Your task to perform on an android device: Go to battery settings Image 0: 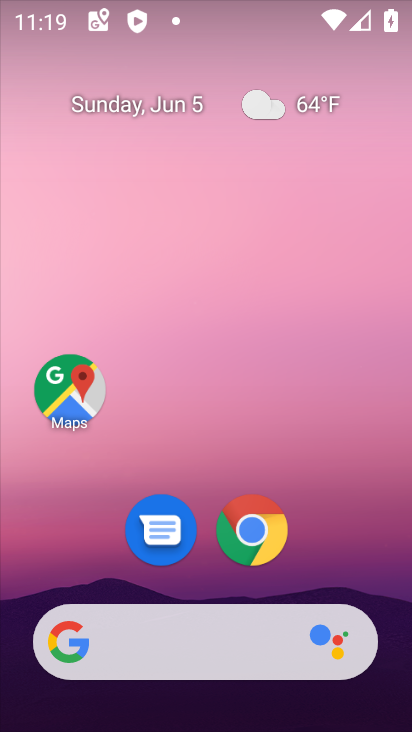
Step 0: drag from (371, 522) to (36, 355)
Your task to perform on an android device: Go to battery settings Image 1: 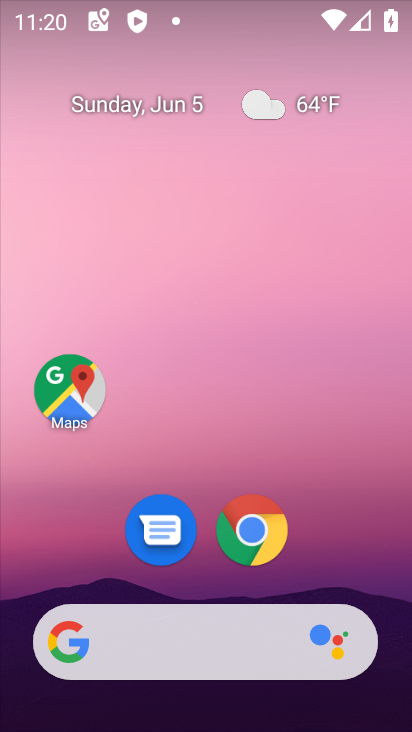
Step 1: drag from (353, 544) to (297, 5)
Your task to perform on an android device: Go to battery settings Image 2: 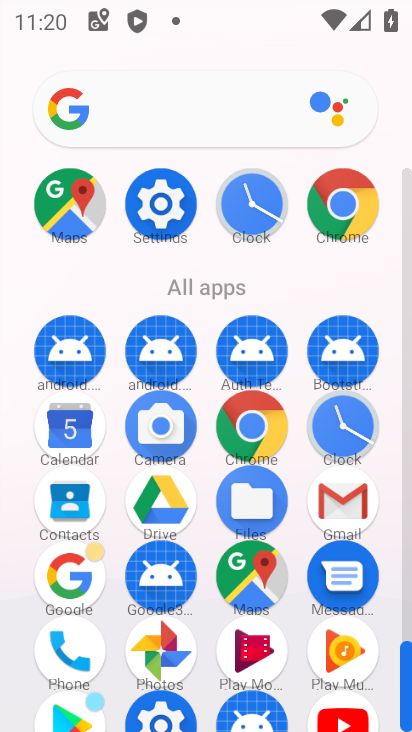
Step 2: click (168, 180)
Your task to perform on an android device: Go to battery settings Image 3: 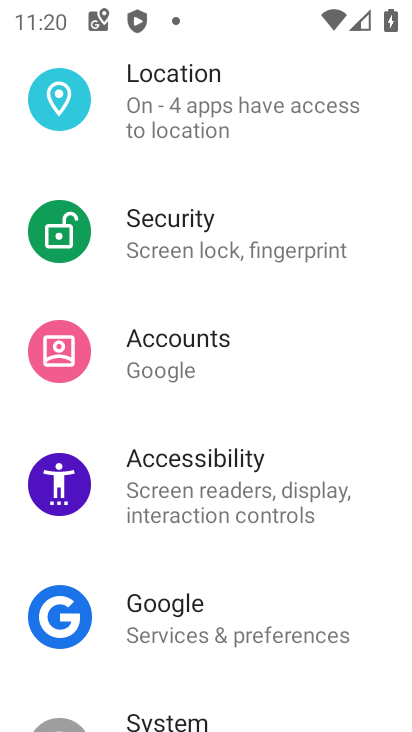
Step 3: drag from (243, 161) to (238, 666)
Your task to perform on an android device: Go to battery settings Image 4: 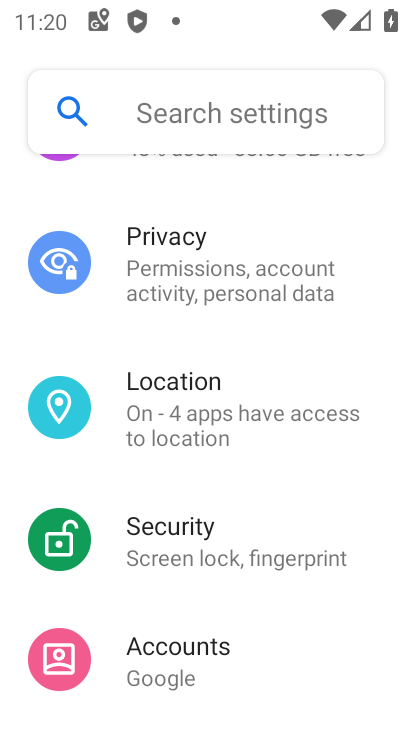
Step 4: drag from (267, 247) to (251, 665)
Your task to perform on an android device: Go to battery settings Image 5: 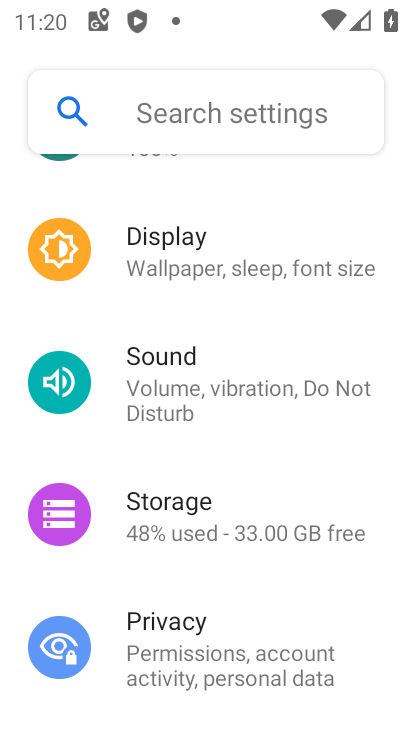
Step 5: drag from (265, 314) to (269, 677)
Your task to perform on an android device: Go to battery settings Image 6: 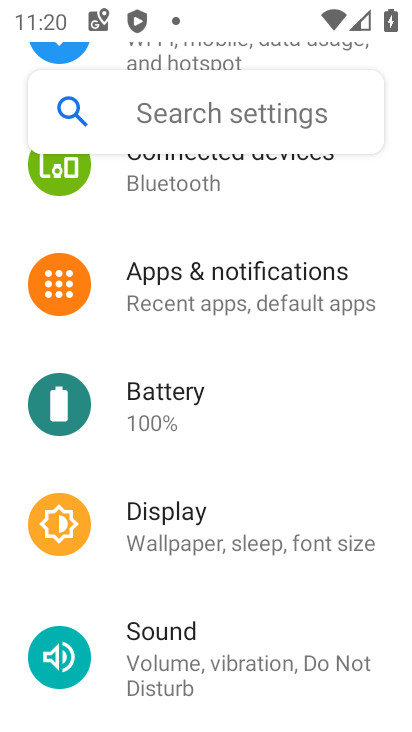
Step 6: click (227, 401)
Your task to perform on an android device: Go to battery settings Image 7: 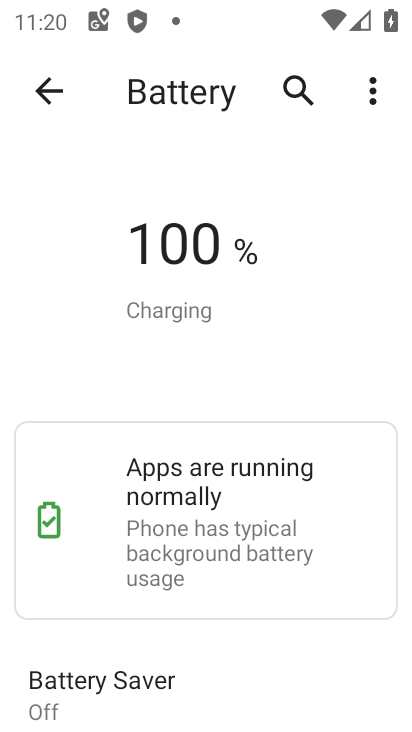
Step 7: task complete